Your task to perform on an android device: set the stopwatch Image 0: 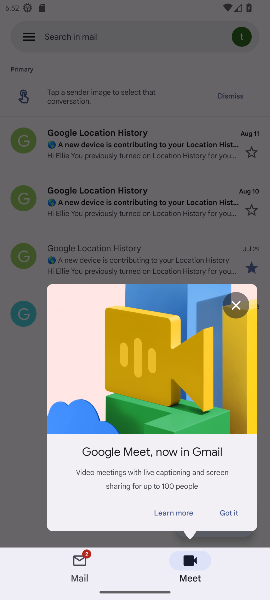
Step 0: click (237, 302)
Your task to perform on an android device: set the stopwatch Image 1: 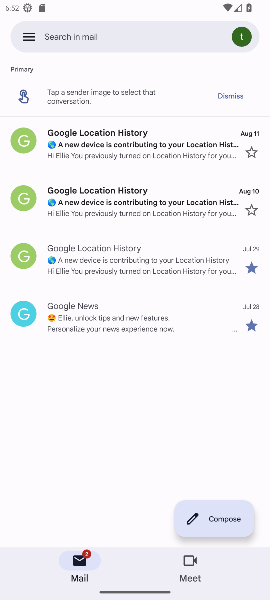
Step 1: click (237, 309)
Your task to perform on an android device: set the stopwatch Image 2: 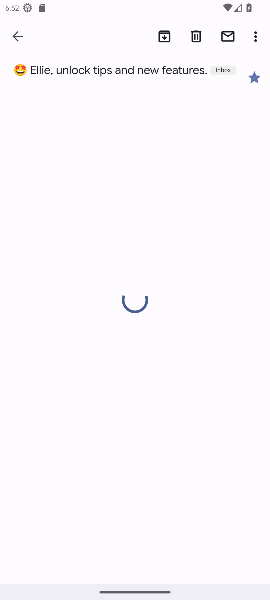
Step 2: task complete